Your task to perform on an android device: turn off sleep mode Image 0: 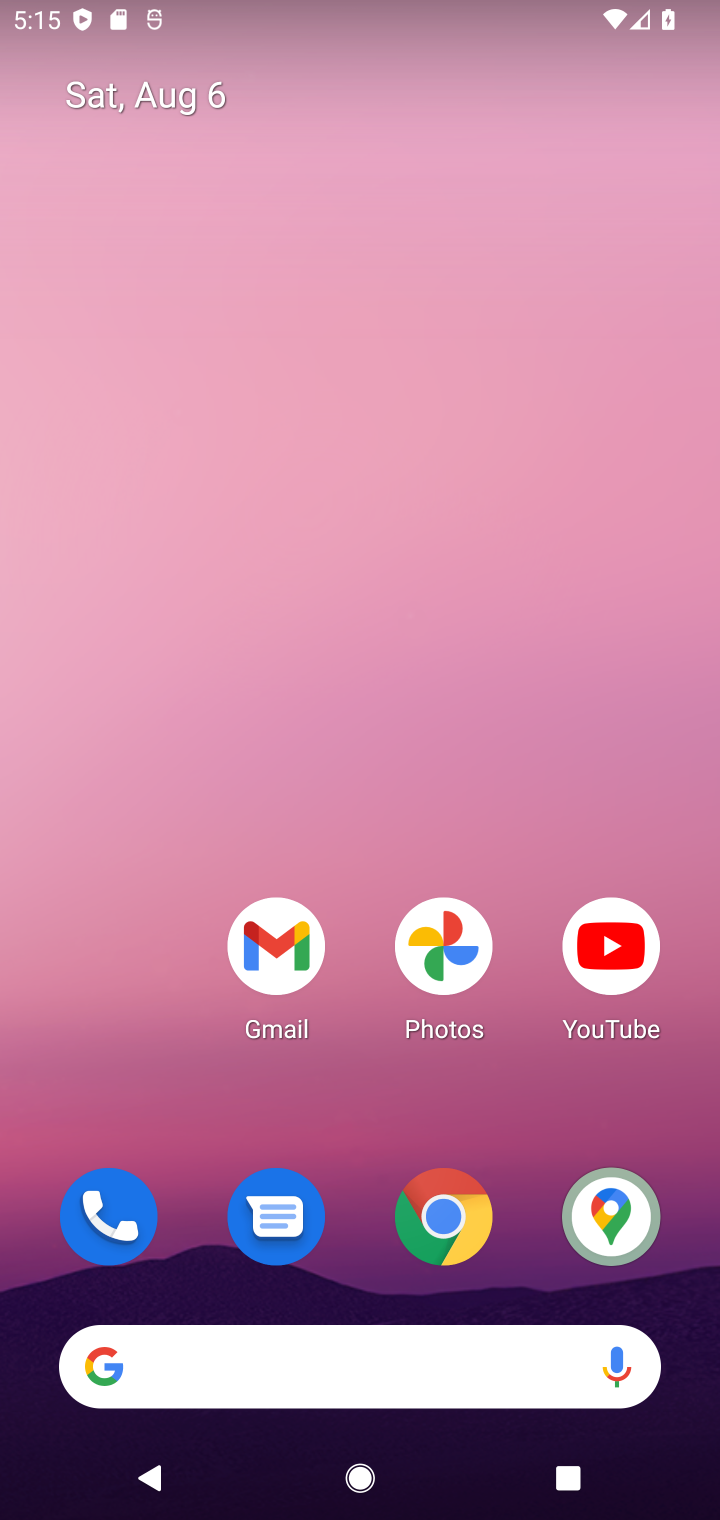
Step 0: drag from (369, 1129) to (446, 161)
Your task to perform on an android device: turn off sleep mode Image 1: 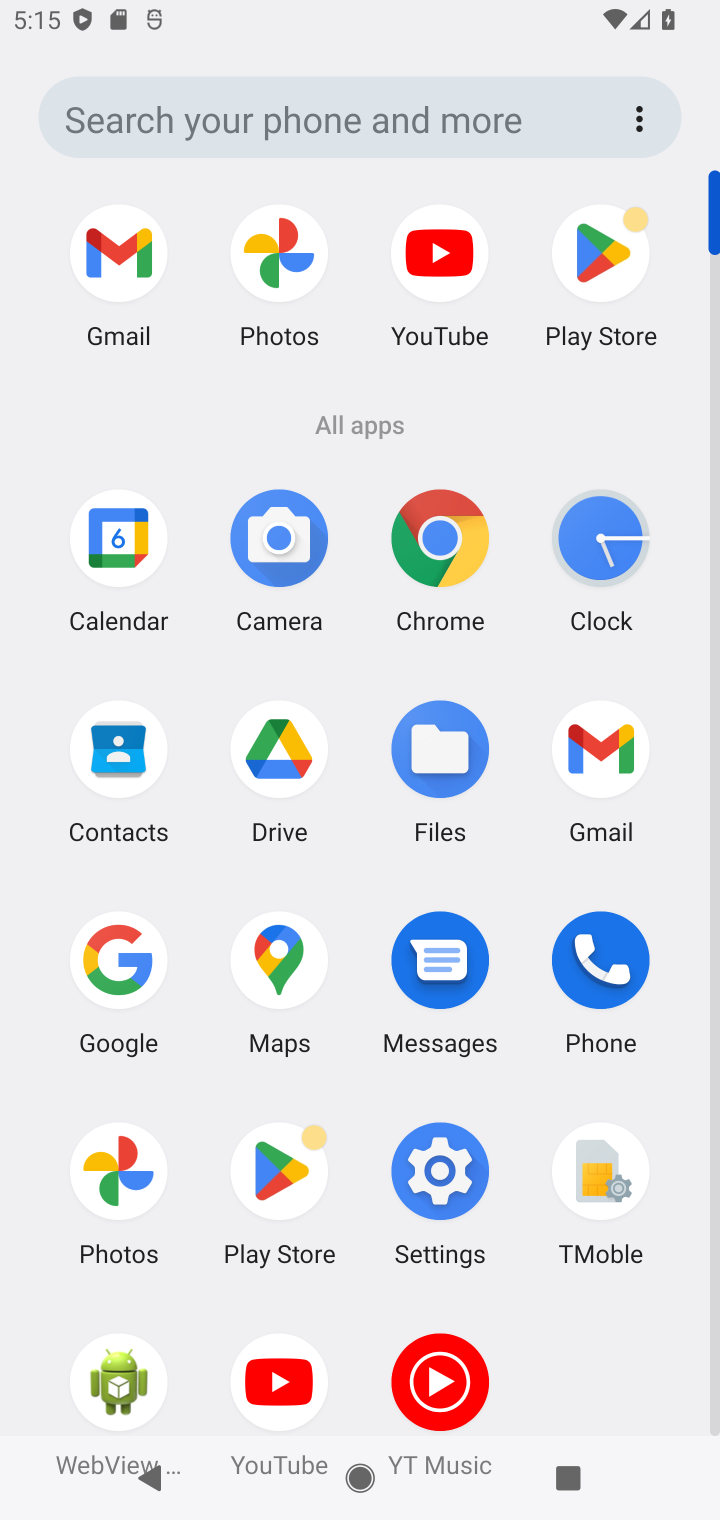
Step 1: click (413, 1169)
Your task to perform on an android device: turn off sleep mode Image 2: 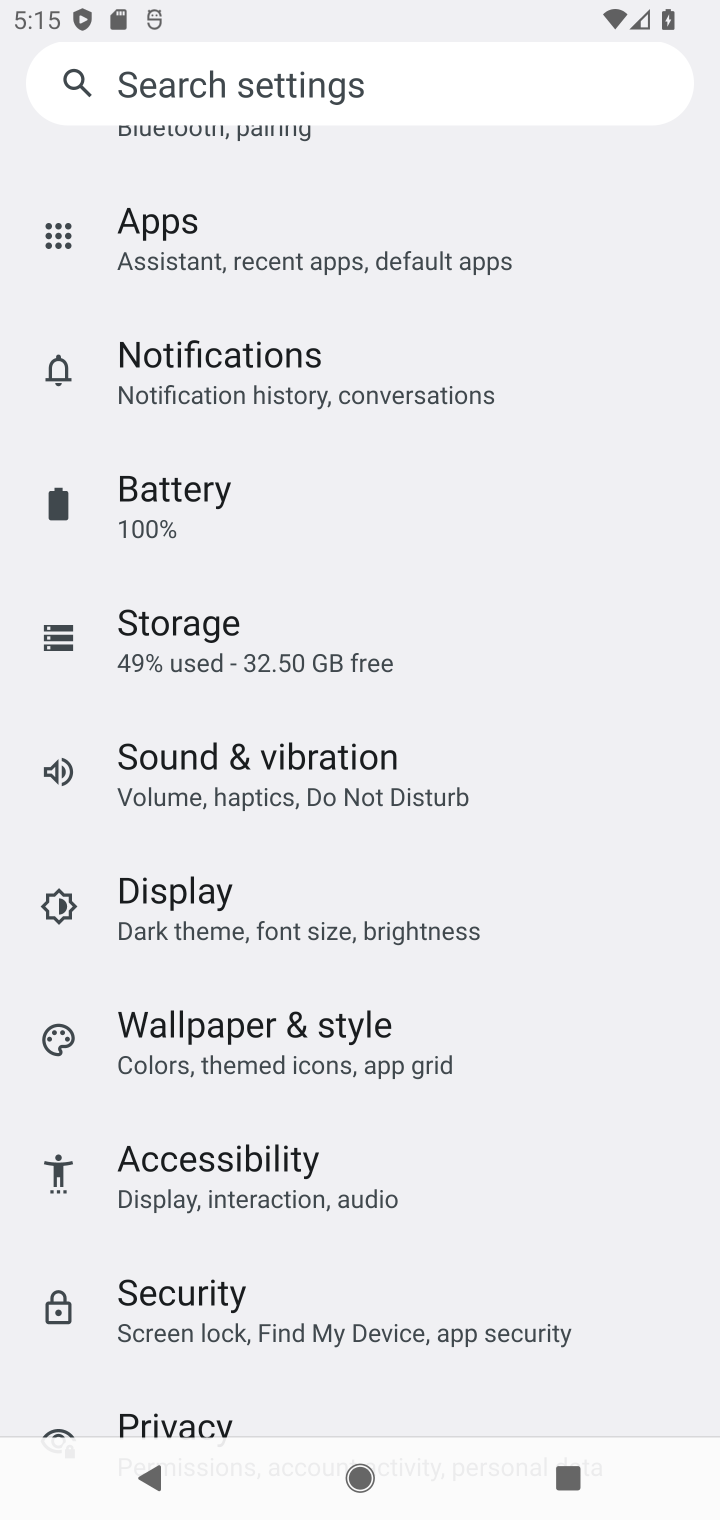
Step 2: click (297, 921)
Your task to perform on an android device: turn off sleep mode Image 3: 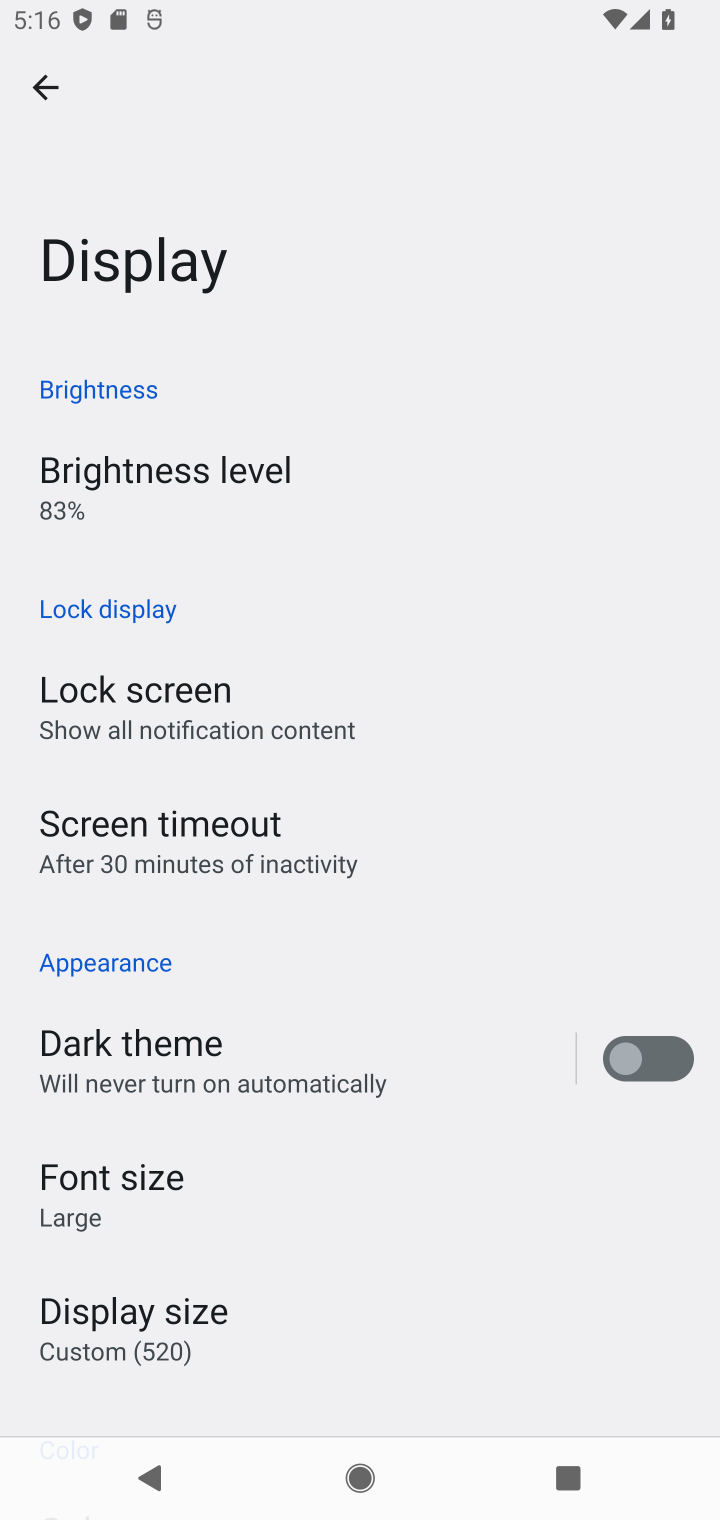
Step 3: click (142, 871)
Your task to perform on an android device: turn off sleep mode Image 4: 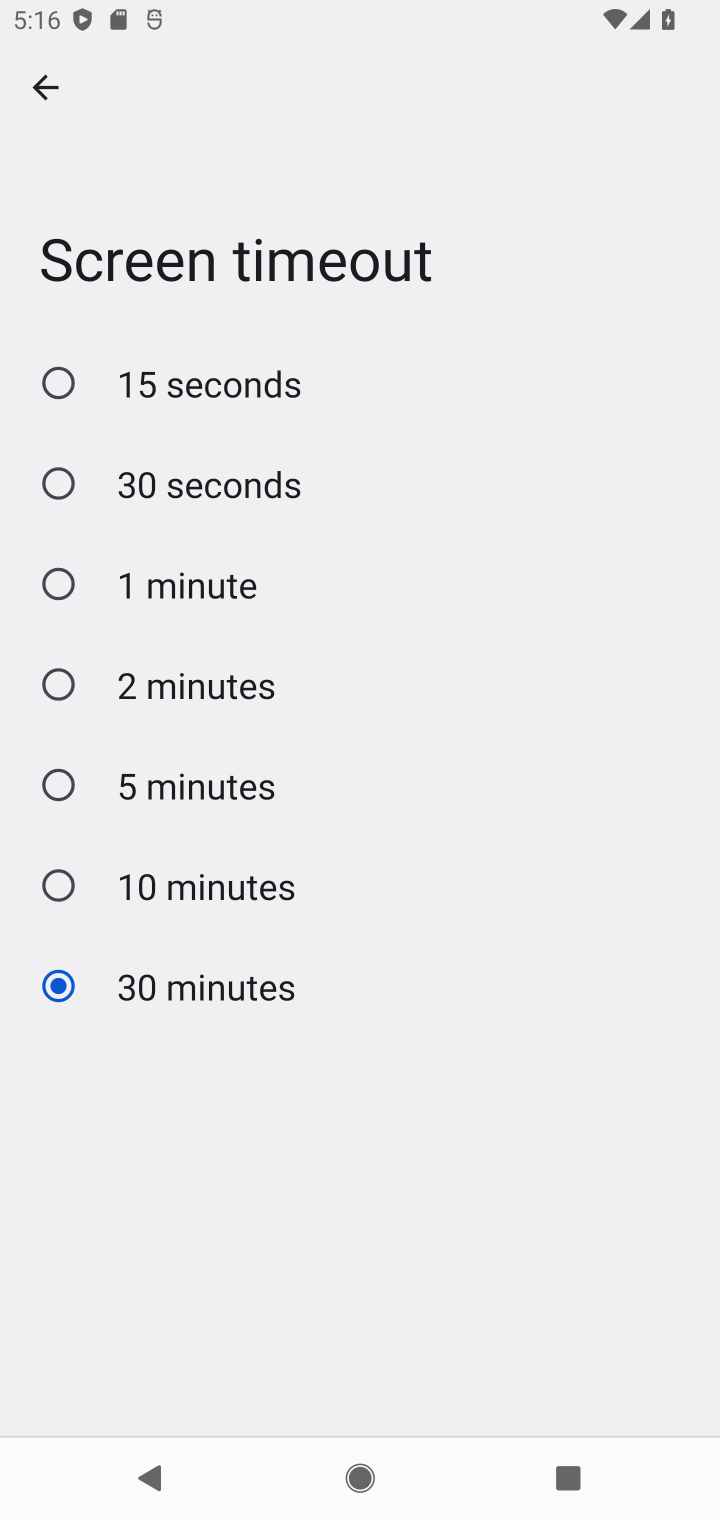
Step 4: task complete